Your task to perform on an android device: turn off sleep mode Image 0: 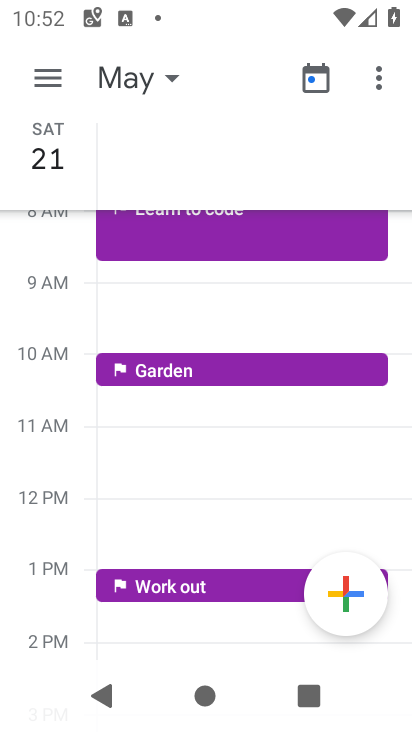
Step 0: press home button
Your task to perform on an android device: turn off sleep mode Image 1: 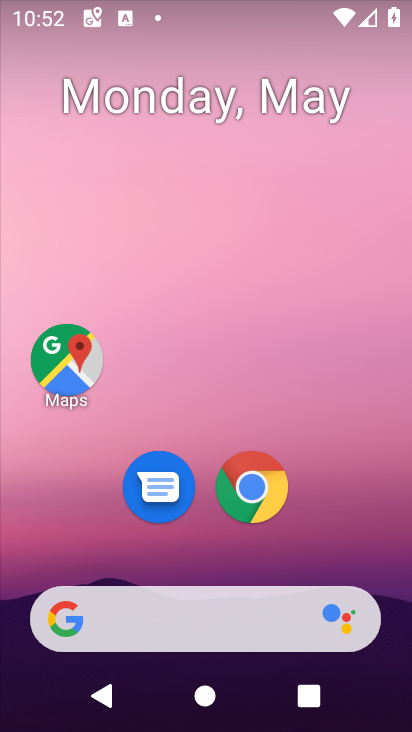
Step 1: drag from (197, 563) to (274, 119)
Your task to perform on an android device: turn off sleep mode Image 2: 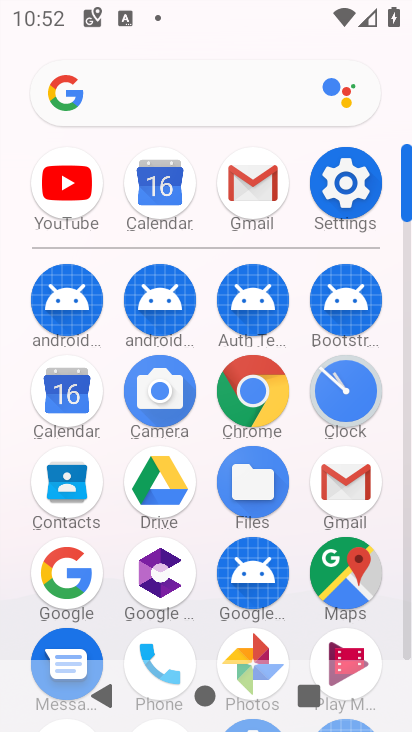
Step 2: click (347, 196)
Your task to perform on an android device: turn off sleep mode Image 3: 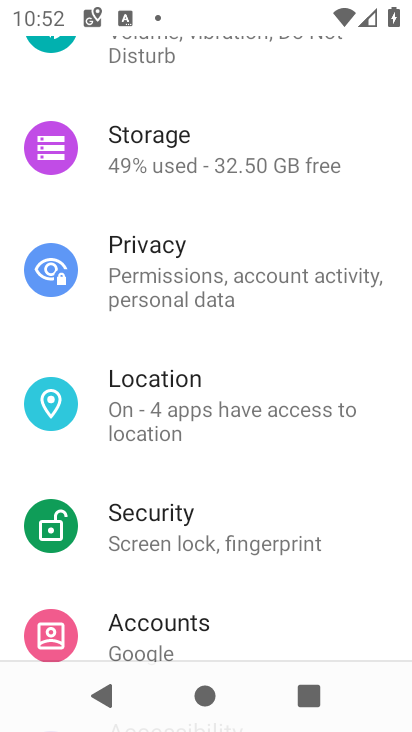
Step 3: drag from (299, 207) to (301, 479)
Your task to perform on an android device: turn off sleep mode Image 4: 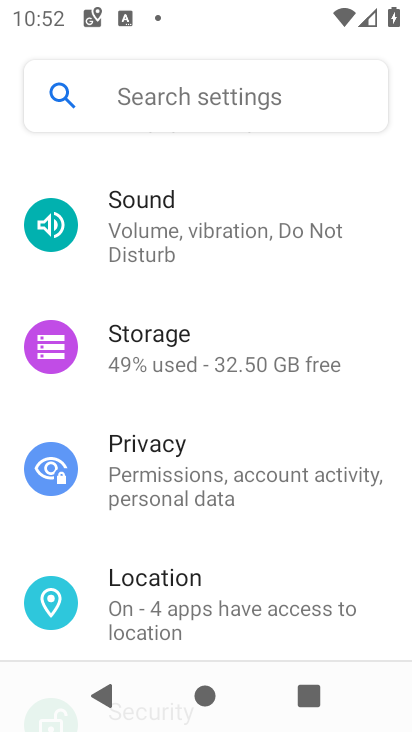
Step 4: drag from (280, 283) to (271, 582)
Your task to perform on an android device: turn off sleep mode Image 5: 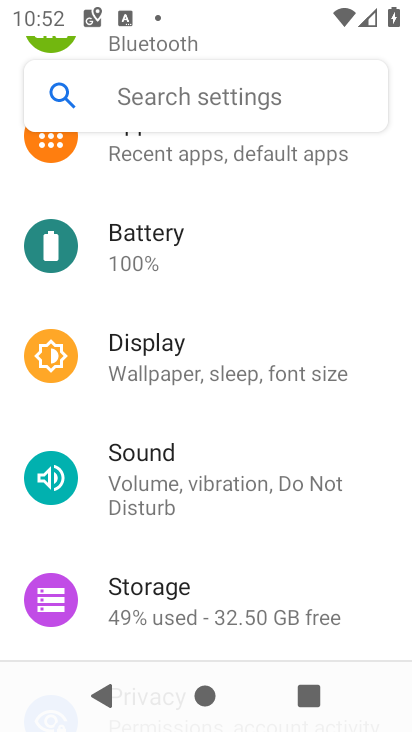
Step 5: drag from (293, 229) to (263, 524)
Your task to perform on an android device: turn off sleep mode Image 6: 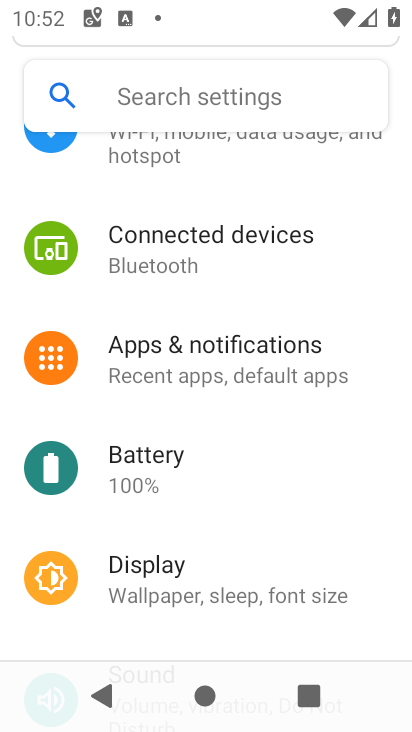
Step 6: drag from (257, 517) to (285, 341)
Your task to perform on an android device: turn off sleep mode Image 7: 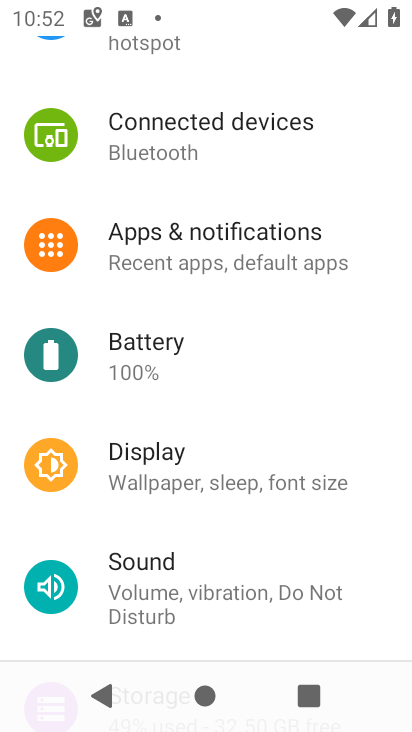
Step 7: click (253, 460)
Your task to perform on an android device: turn off sleep mode Image 8: 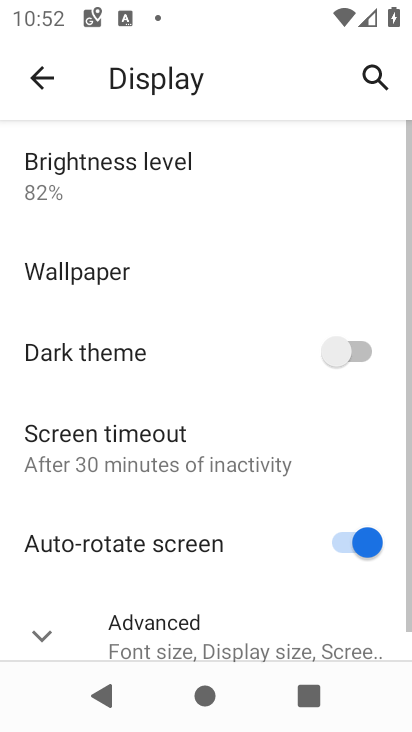
Step 8: click (253, 460)
Your task to perform on an android device: turn off sleep mode Image 9: 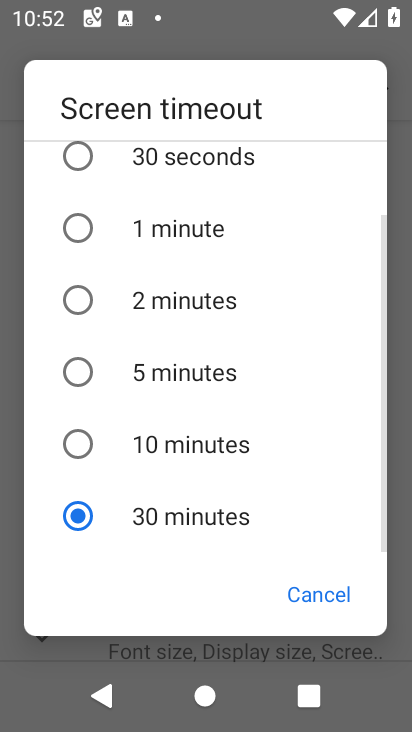
Step 9: task complete